Your task to perform on an android device: turn on wifi Image 0: 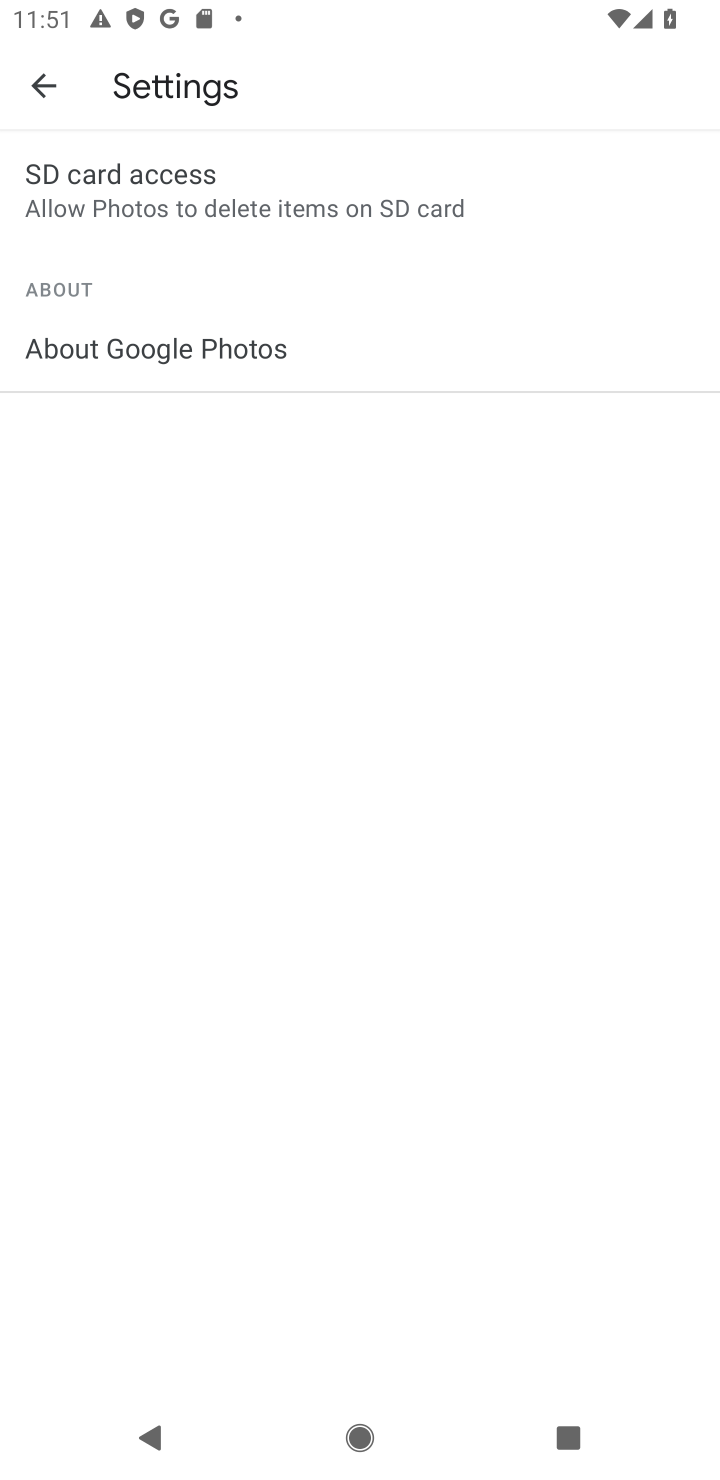
Step 0: press home button
Your task to perform on an android device: turn on wifi Image 1: 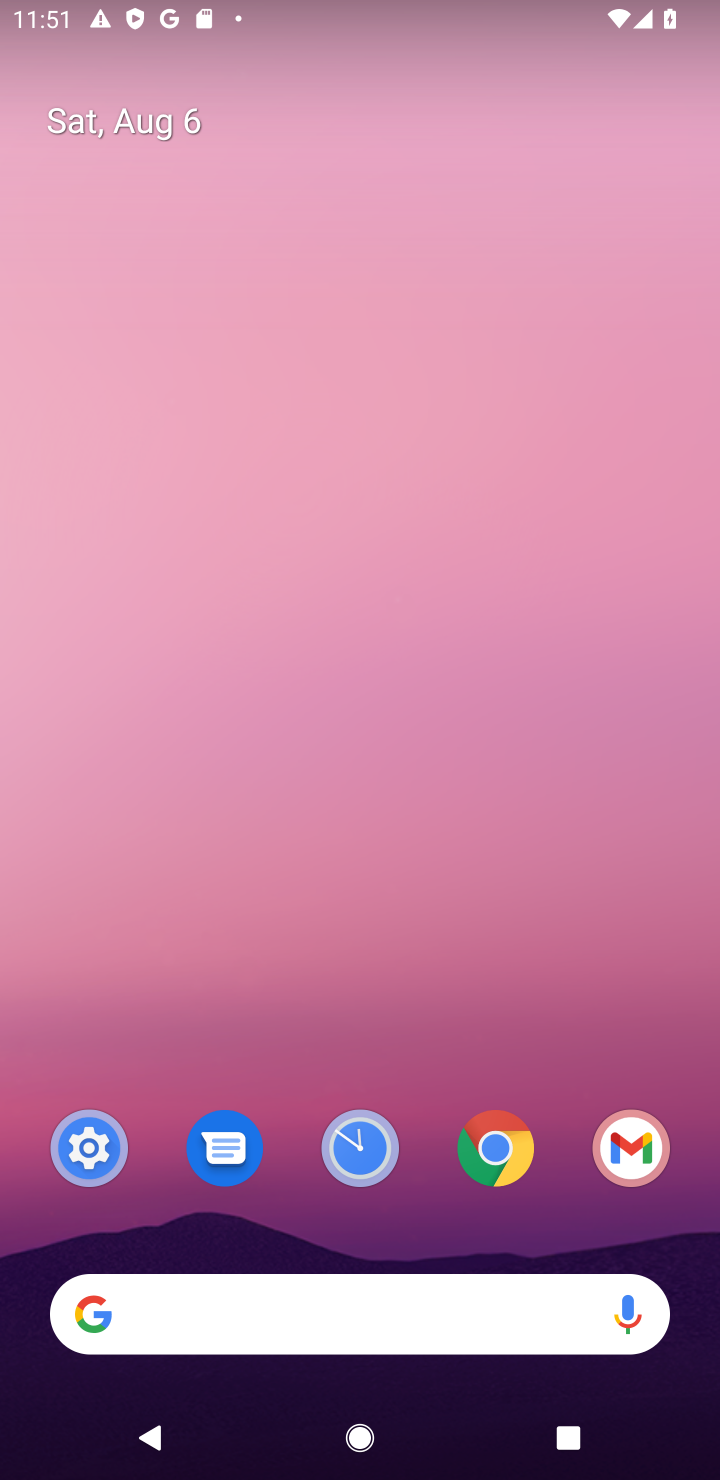
Step 1: click (85, 1139)
Your task to perform on an android device: turn on wifi Image 2: 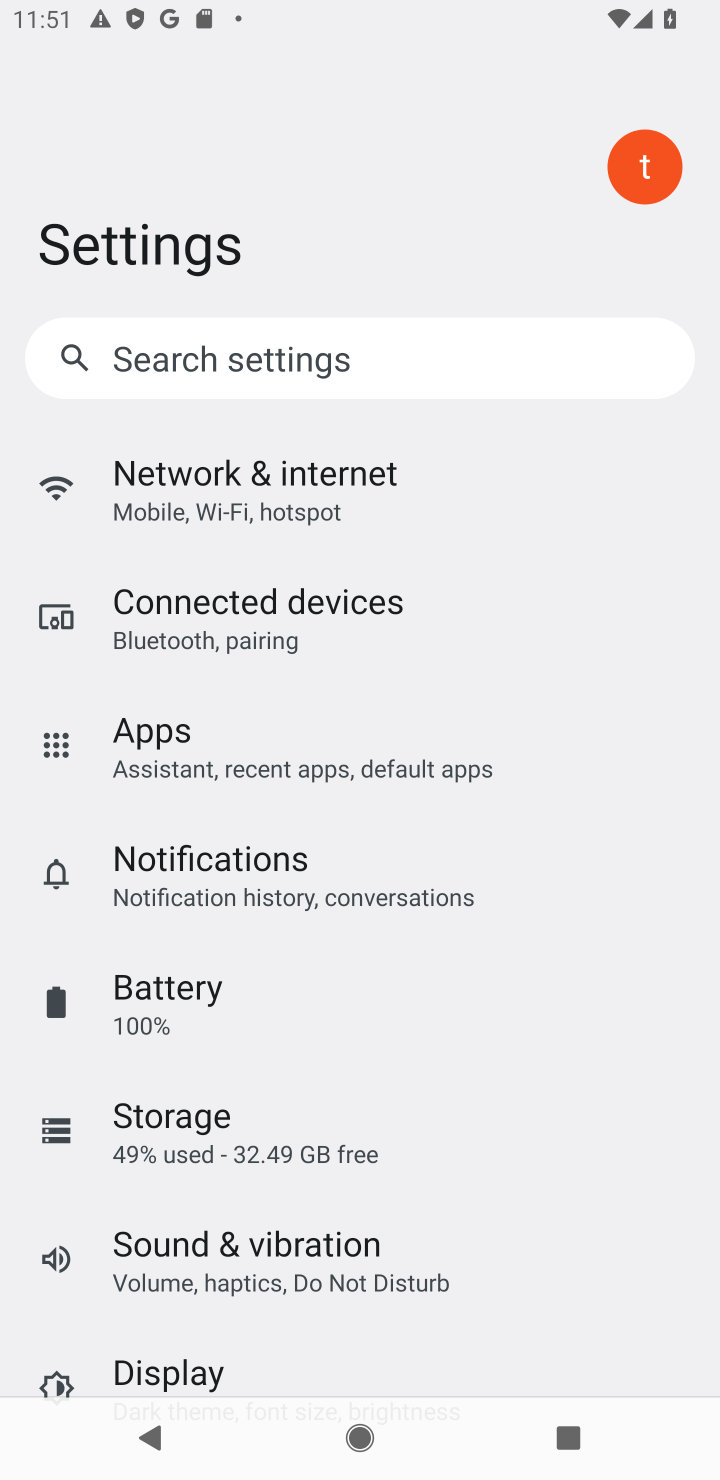
Step 2: click (280, 452)
Your task to perform on an android device: turn on wifi Image 3: 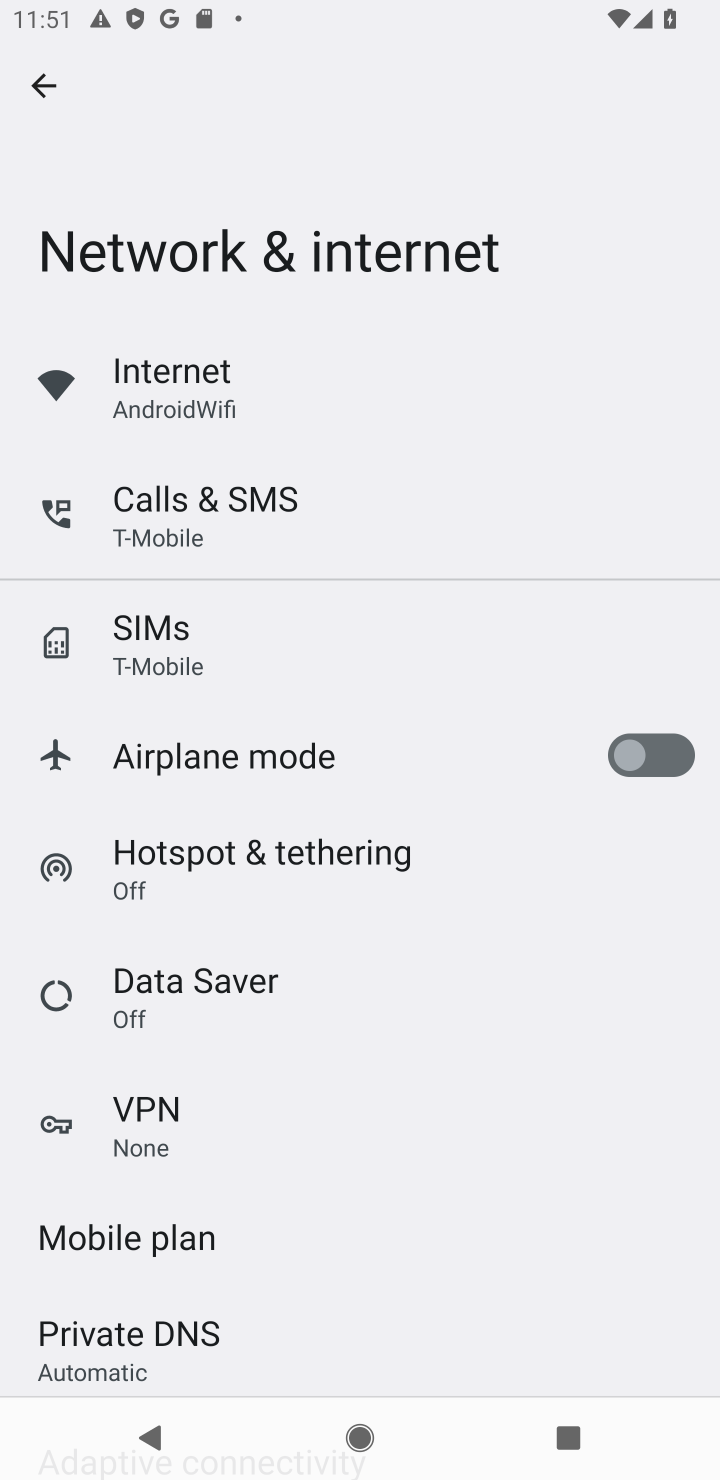
Step 3: click (178, 379)
Your task to perform on an android device: turn on wifi Image 4: 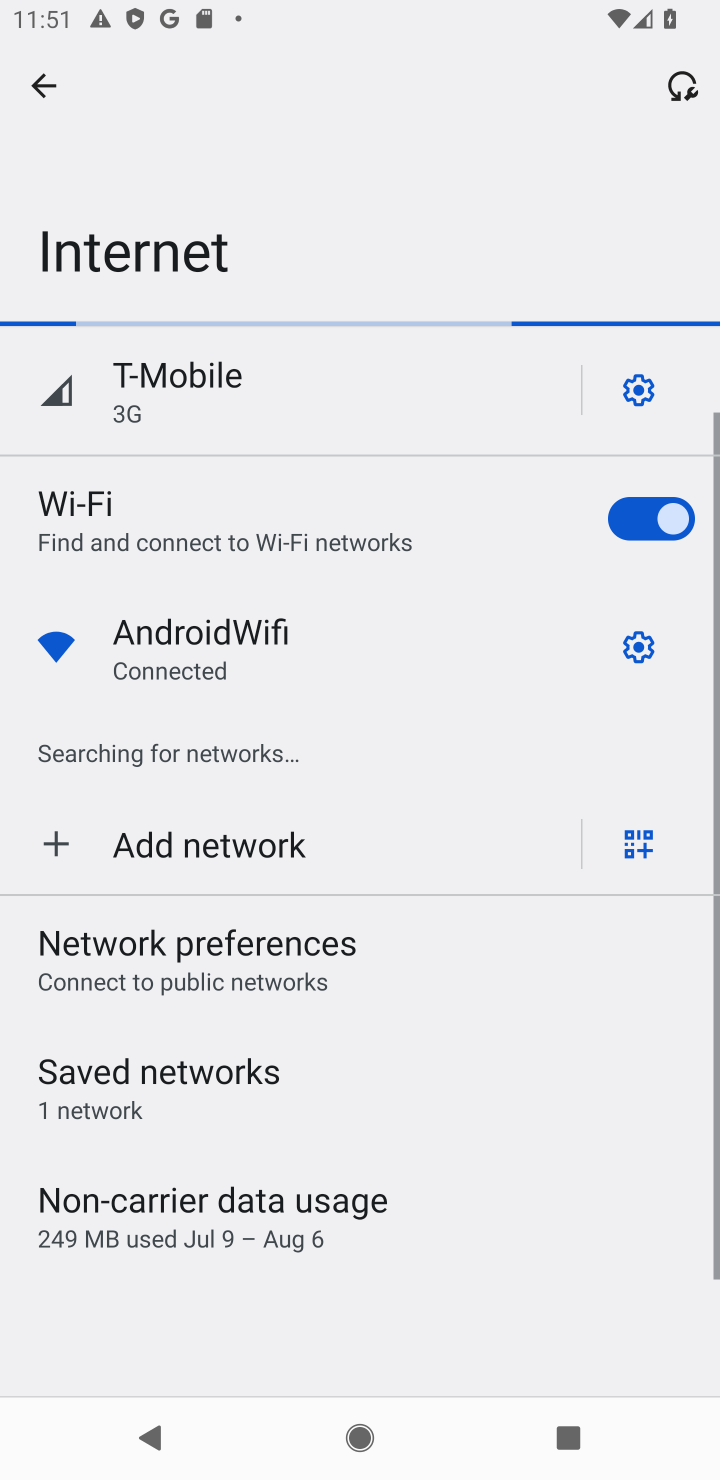
Step 4: task complete